Your task to perform on an android device: Look up the best rated wireless earbuds on Ali Express Image 0: 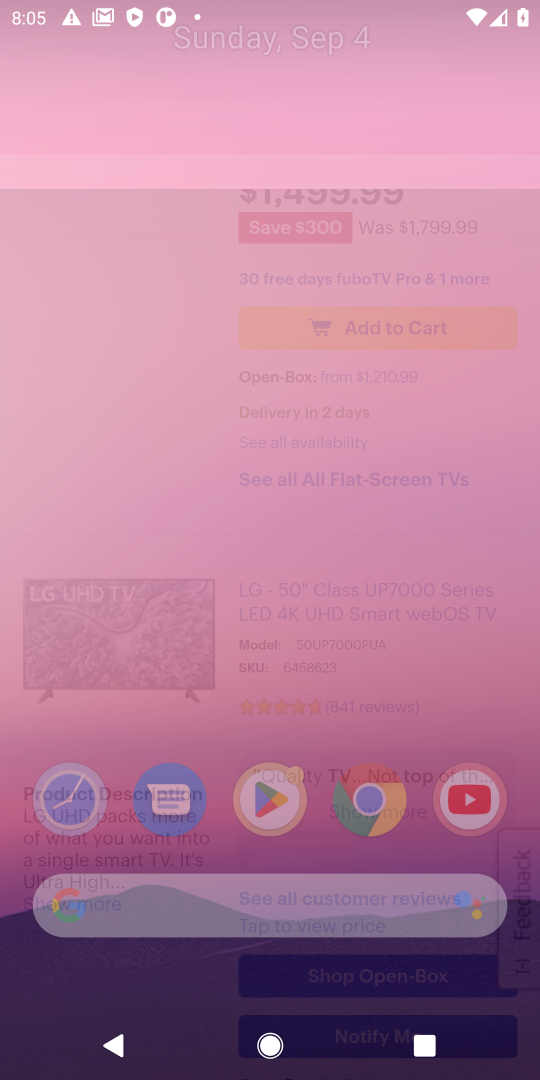
Step 0: press home button
Your task to perform on an android device: Look up the best rated wireless earbuds on Ali Express Image 1: 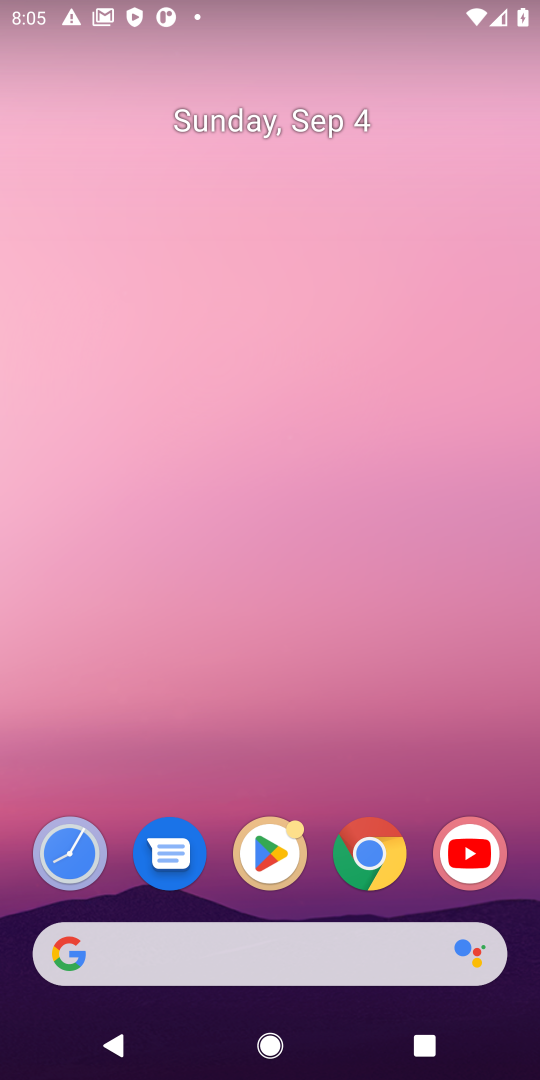
Step 1: drag from (311, 785) to (325, 72)
Your task to perform on an android device: Look up the best rated wireless earbuds on Ali Express Image 2: 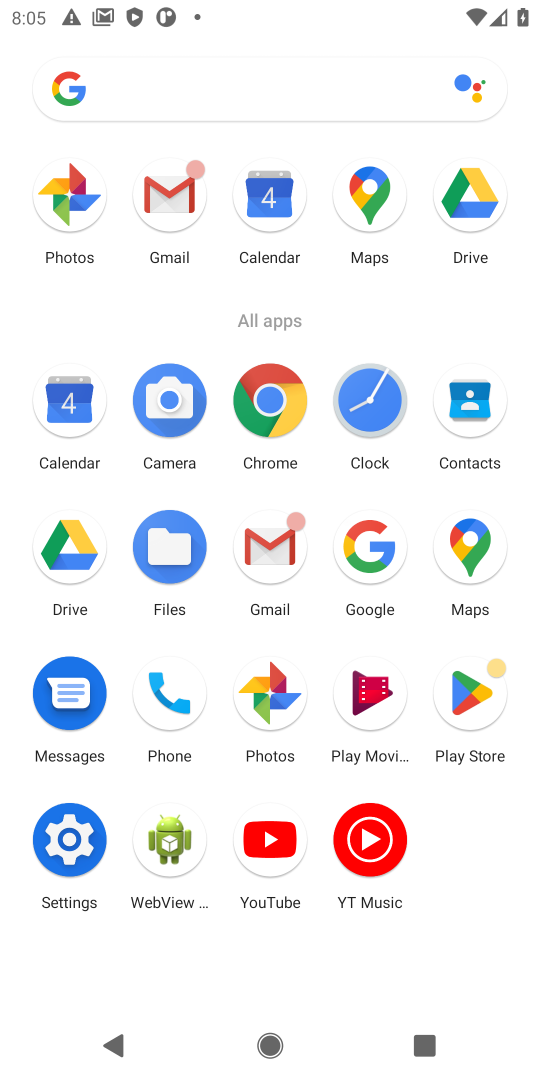
Step 2: click (269, 395)
Your task to perform on an android device: Look up the best rated wireless earbuds on Ali Express Image 3: 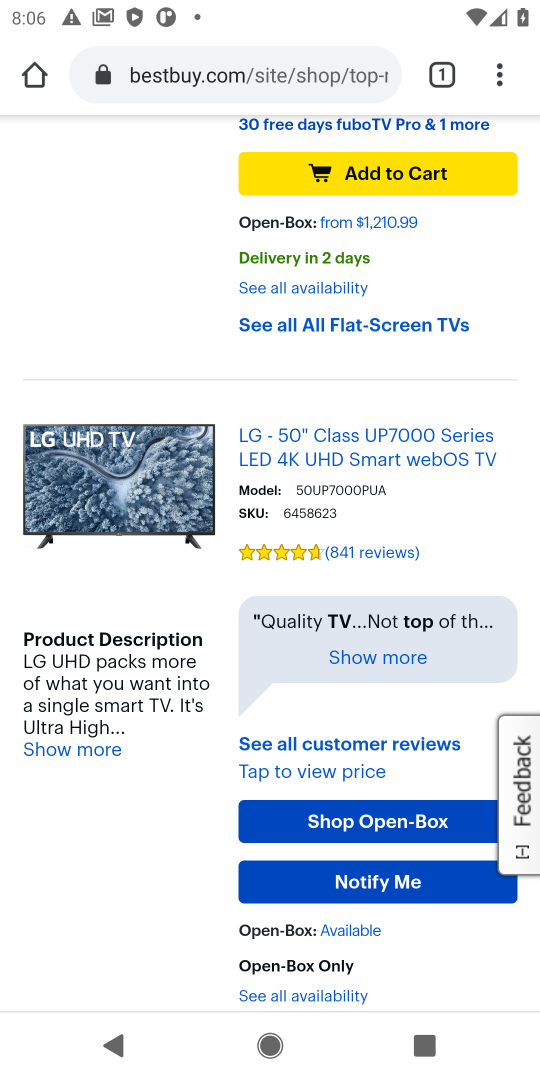
Step 3: click (438, 77)
Your task to perform on an android device: Look up the best rated wireless earbuds on Ali Express Image 4: 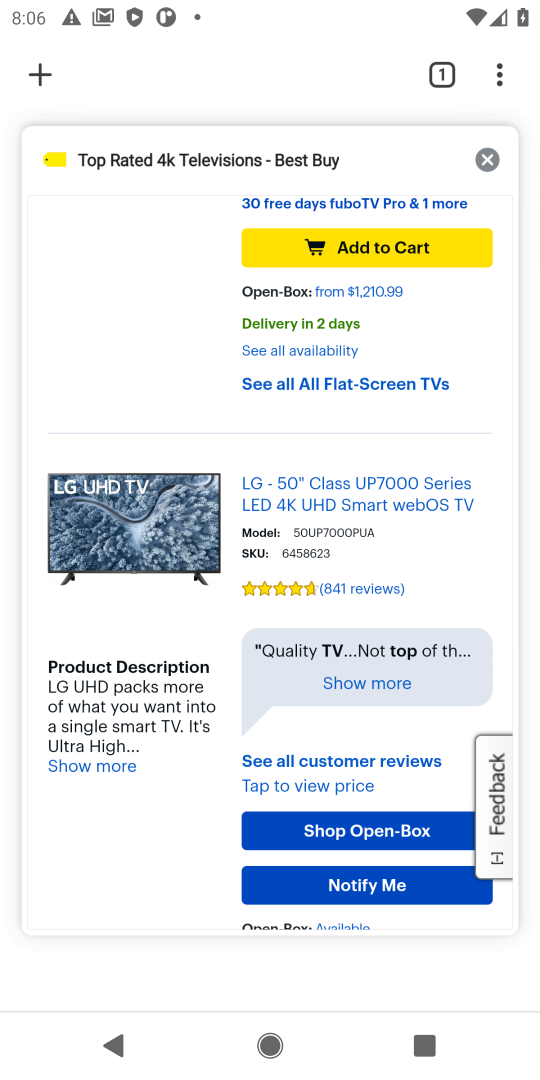
Step 4: click (486, 160)
Your task to perform on an android device: Look up the best rated wireless earbuds on Ali Express Image 5: 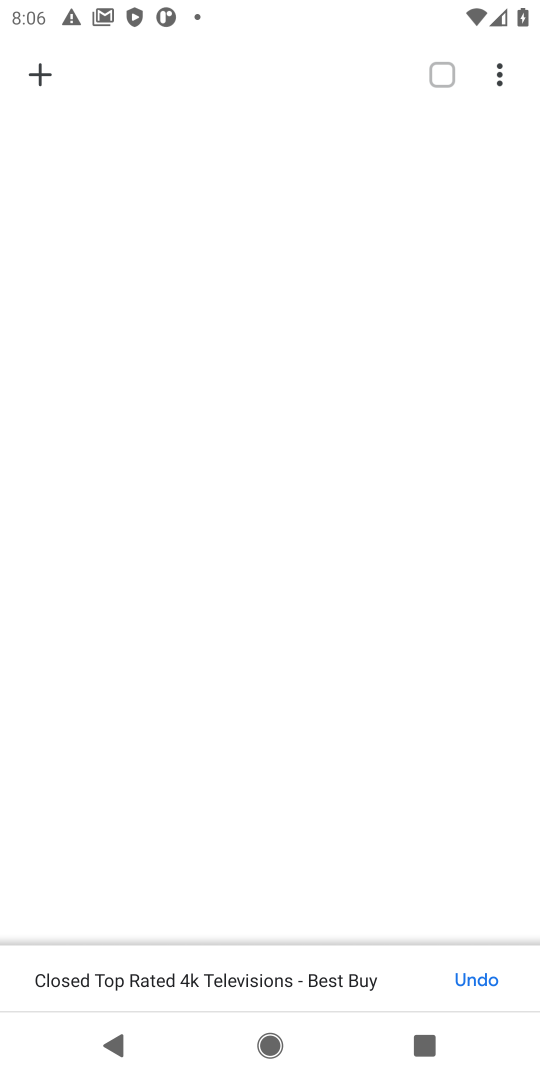
Step 5: click (35, 82)
Your task to perform on an android device: Look up the best rated wireless earbuds on Ali Express Image 6: 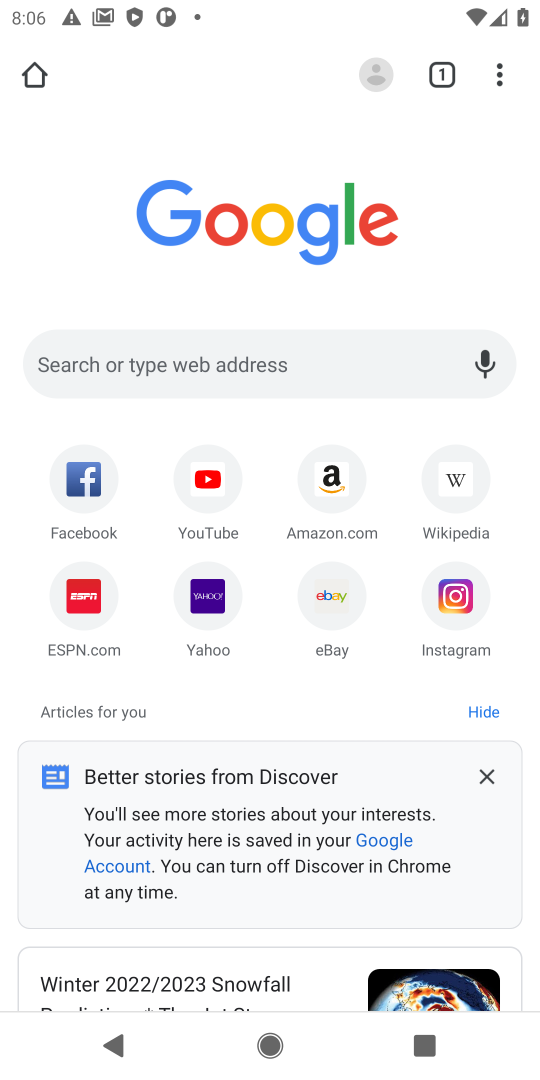
Step 6: click (131, 346)
Your task to perform on an android device: Look up the best rated wireless earbuds on Ali Express Image 7: 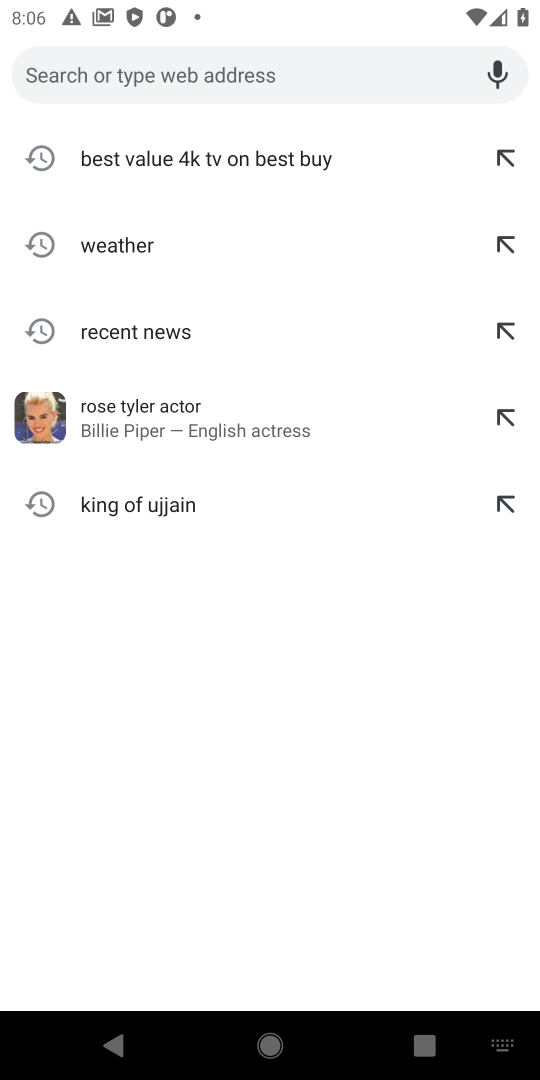
Step 7: type "best rated wireless earbuds on Ali Express"
Your task to perform on an android device: Look up the best rated wireless earbuds on Ali Express Image 8: 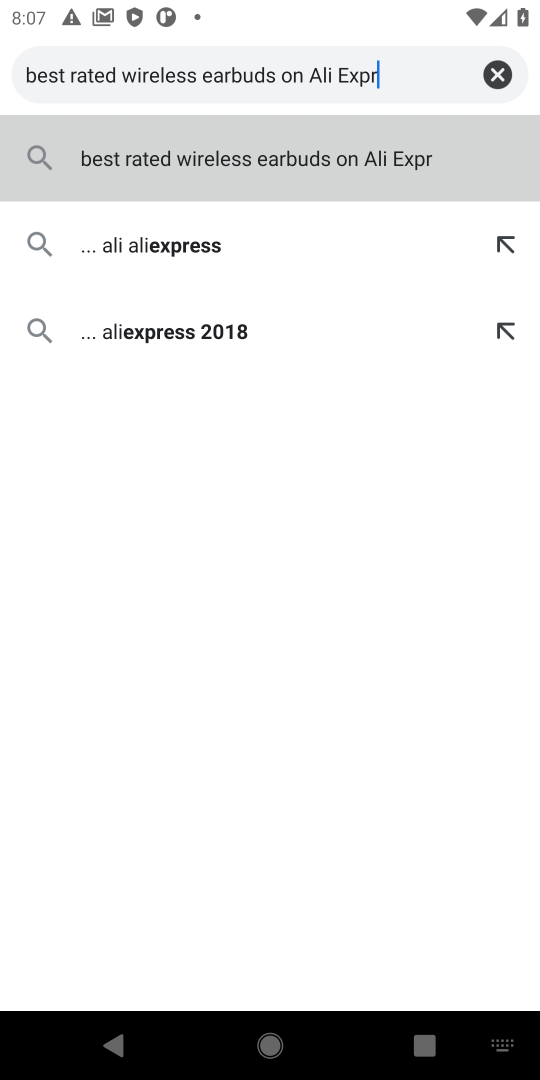
Step 8: click (316, 179)
Your task to perform on an android device: Look up the best rated wireless earbuds on Ali Express Image 9: 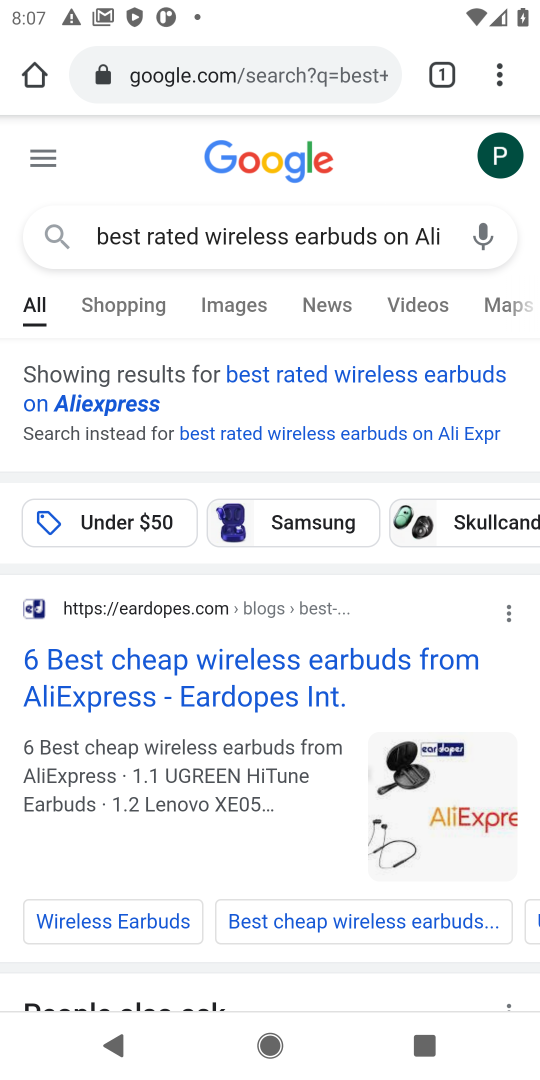
Step 9: click (262, 376)
Your task to perform on an android device: Look up the best rated wireless earbuds on Ali Express Image 10: 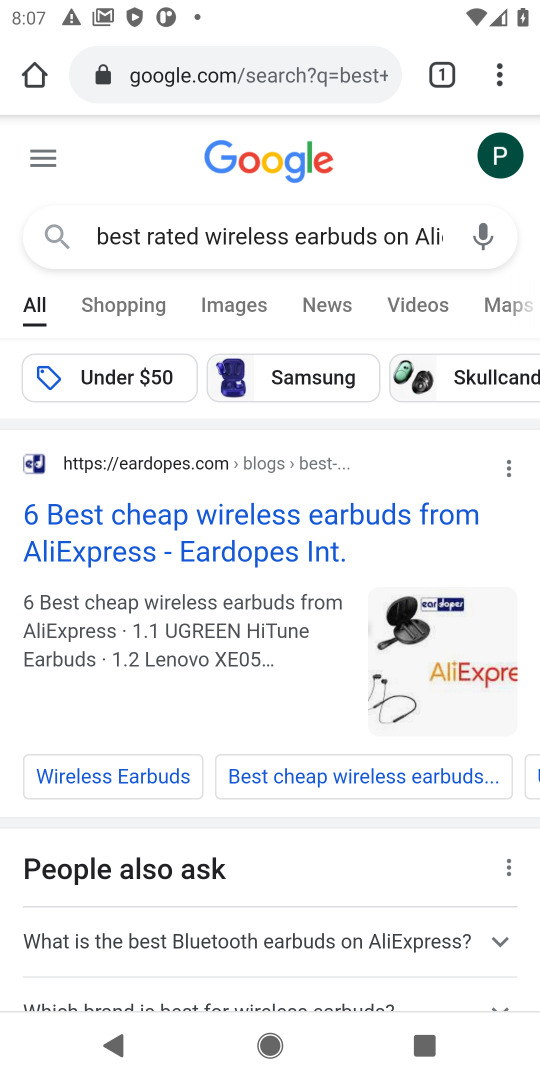
Step 10: drag from (289, 869) to (306, 321)
Your task to perform on an android device: Look up the best rated wireless earbuds on Ali Express Image 11: 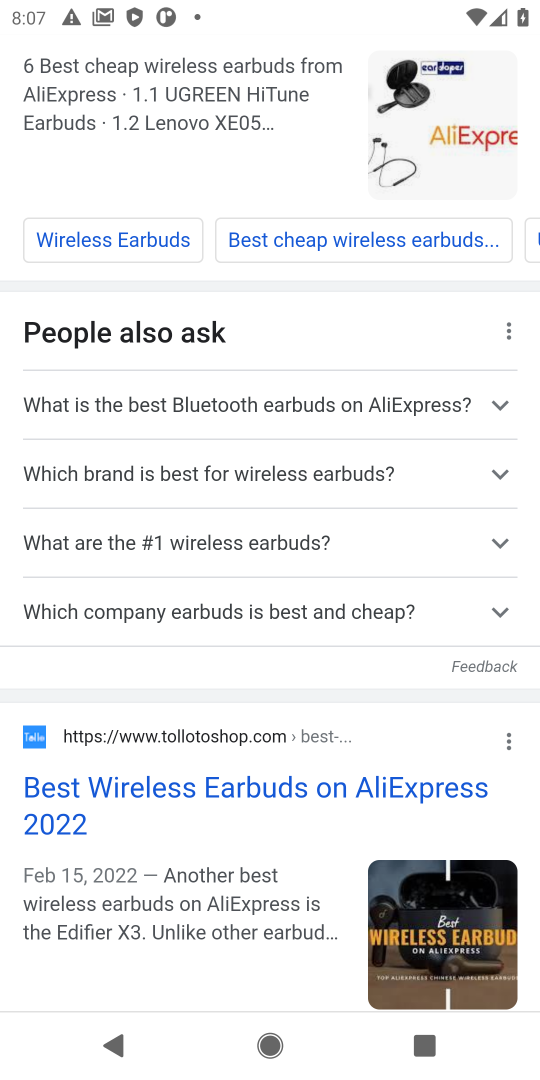
Step 11: drag from (231, 856) to (254, 604)
Your task to perform on an android device: Look up the best rated wireless earbuds on Ali Express Image 12: 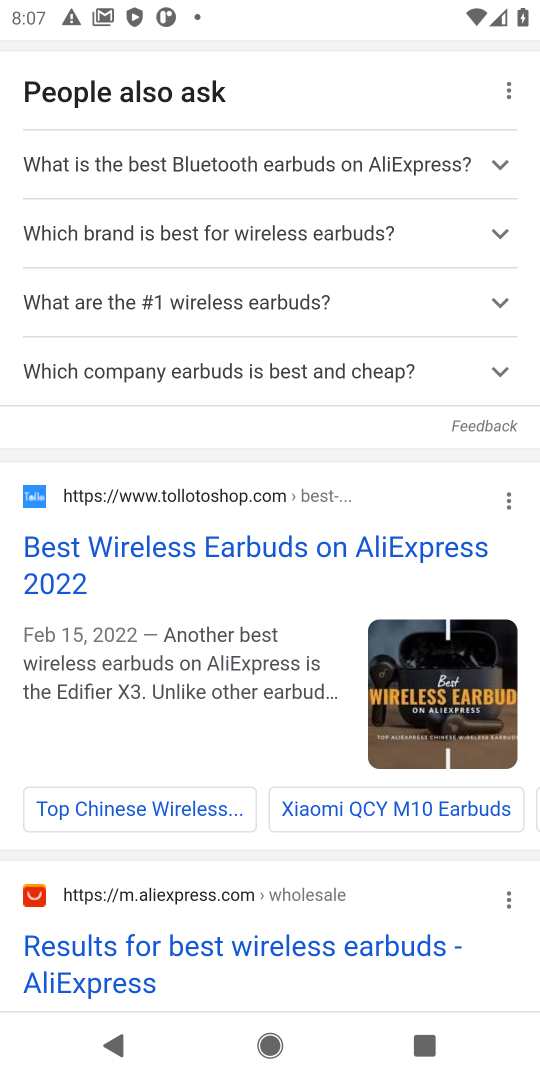
Step 12: click (258, 954)
Your task to perform on an android device: Look up the best rated wireless earbuds on Ali Express Image 13: 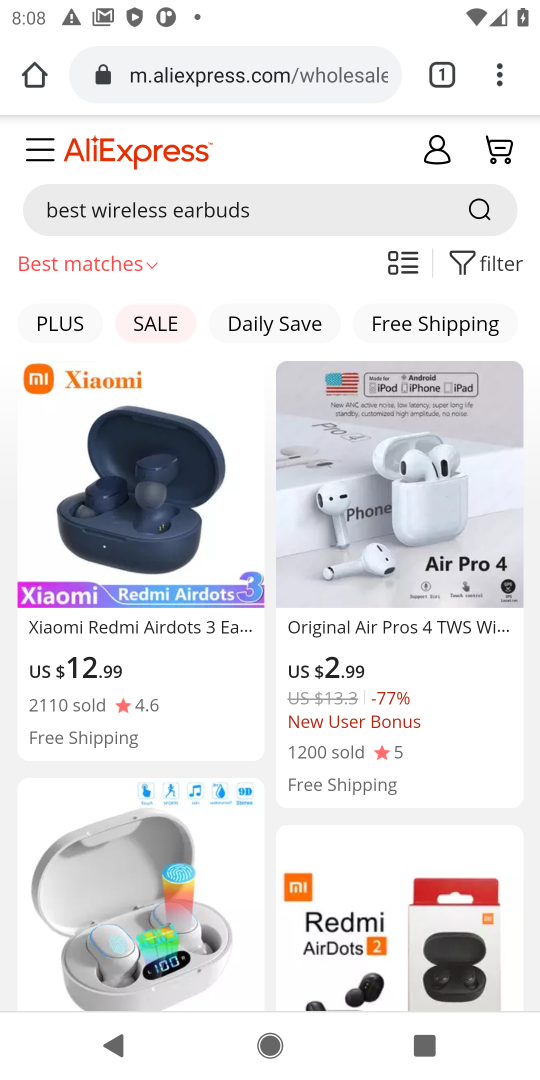
Step 13: task complete